Your task to perform on an android device: Show me popular games on the Play Store Image 0: 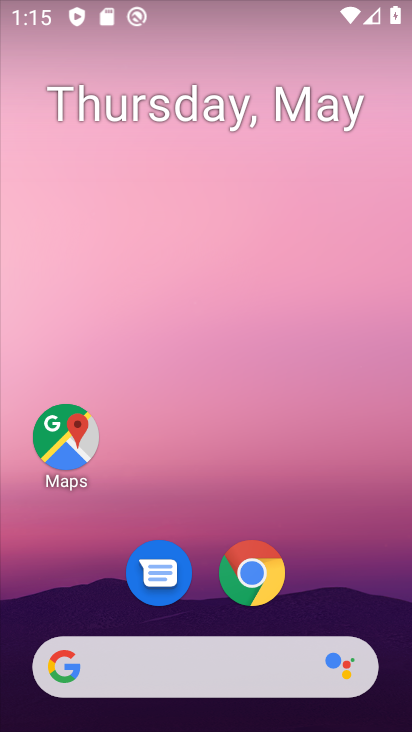
Step 0: drag from (389, 608) to (368, 275)
Your task to perform on an android device: Show me popular games on the Play Store Image 1: 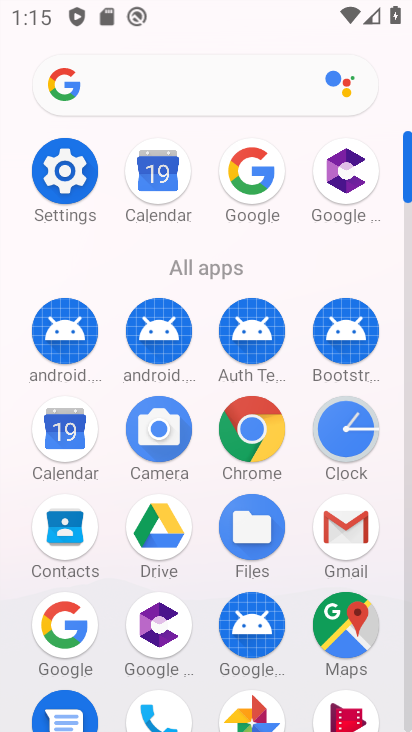
Step 1: drag from (409, 139) to (409, 98)
Your task to perform on an android device: Show me popular games on the Play Store Image 2: 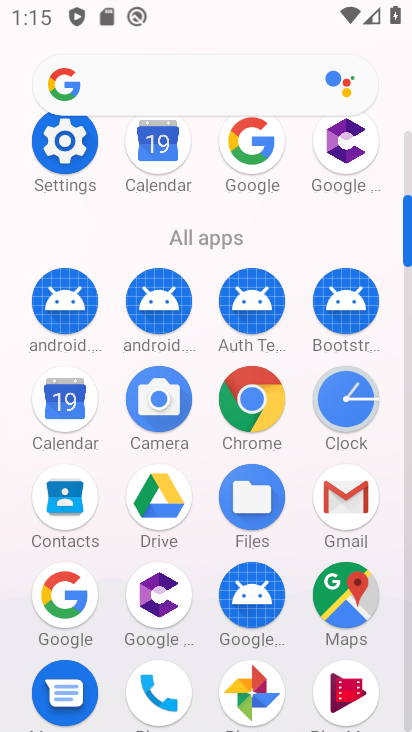
Step 2: drag from (410, 179) to (409, 82)
Your task to perform on an android device: Show me popular games on the Play Store Image 3: 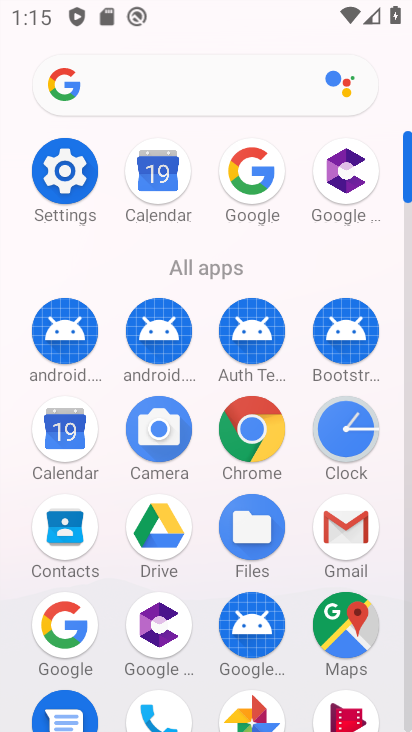
Step 3: drag from (406, 143) to (406, 101)
Your task to perform on an android device: Show me popular games on the Play Store Image 4: 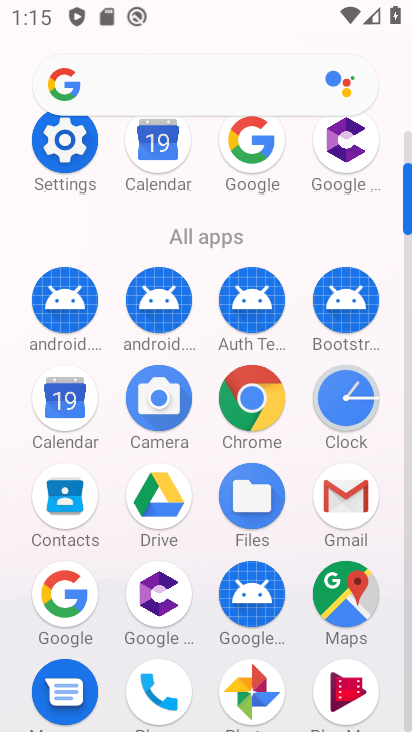
Step 4: drag from (410, 170) to (402, 83)
Your task to perform on an android device: Show me popular games on the Play Store Image 5: 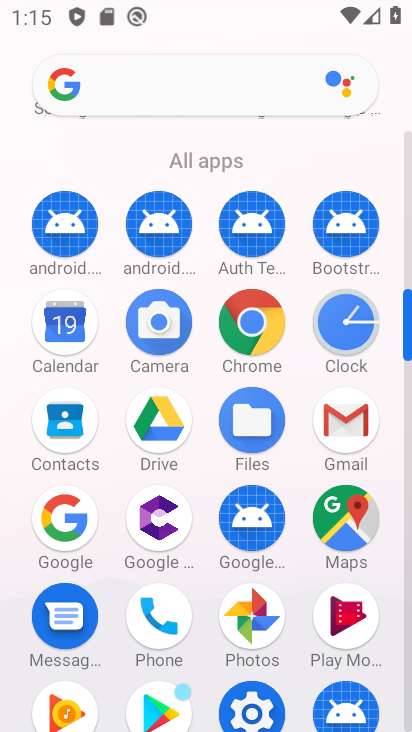
Step 5: click (137, 704)
Your task to perform on an android device: Show me popular games on the Play Store Image 6: 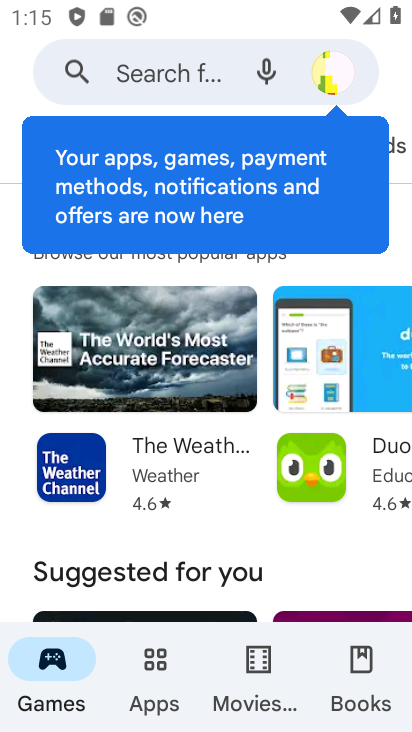
Step 6: click (226, 86)
Your task to perform on an android device: Show me popular games on the Play Store Image 7: 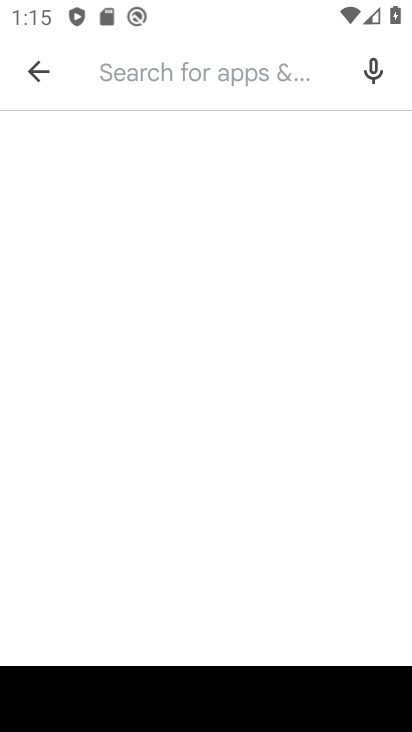
Step 7: type " popular games"
Your task to perform on an android device: Show me popular games on the Play Store Image 8: 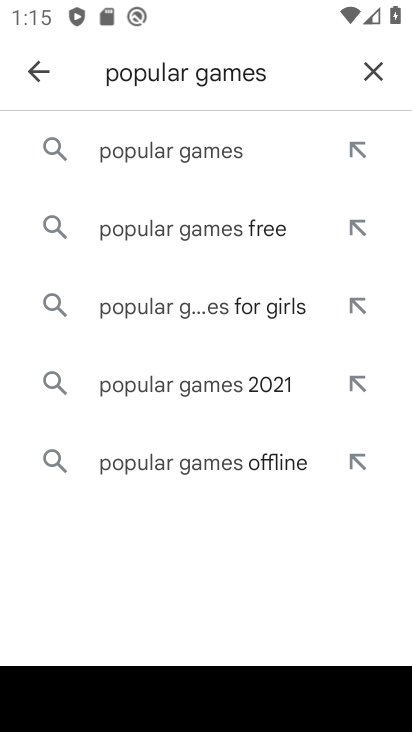
Step 8: click (194, 155)
Your task to perform on an android device: Show me popular games on the Play Store Image 9: 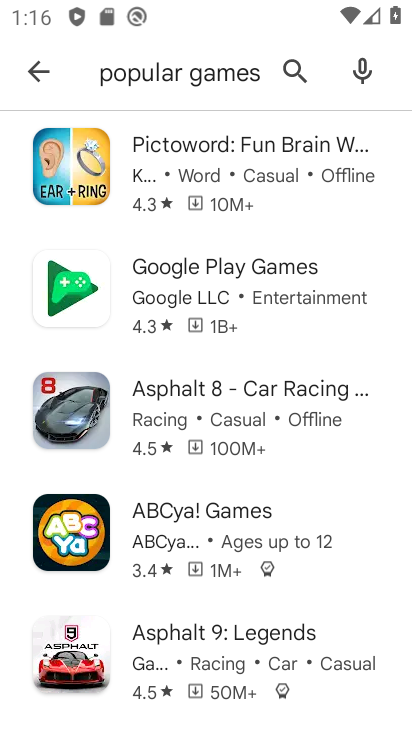
Step 9: task complete